Your task to perform on an android device: Turn off the flashlight Image 0: 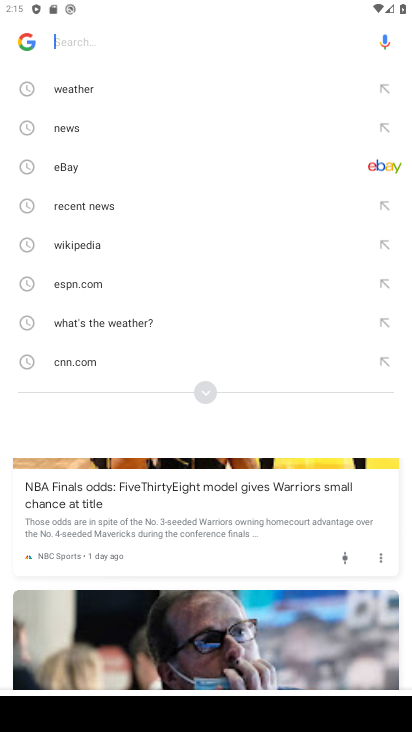
Step 0: press home button
Your task to perform on an android device: Turn off the flashlight Image 1: 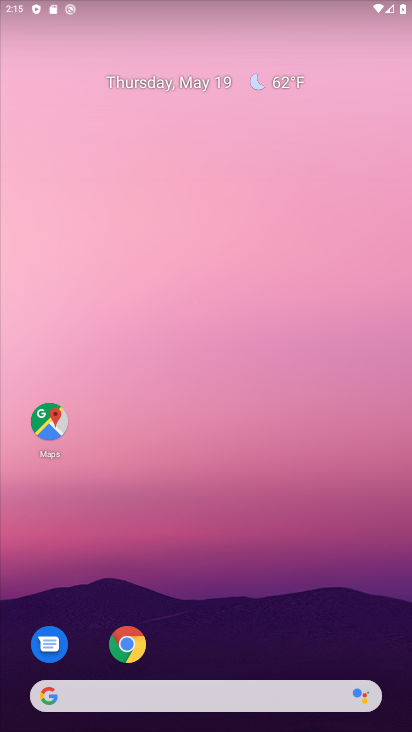
Step 1: drag from (276, 571) to (305, 158)
Your task to perform on an android device: Turn off the flashlight Image 2: 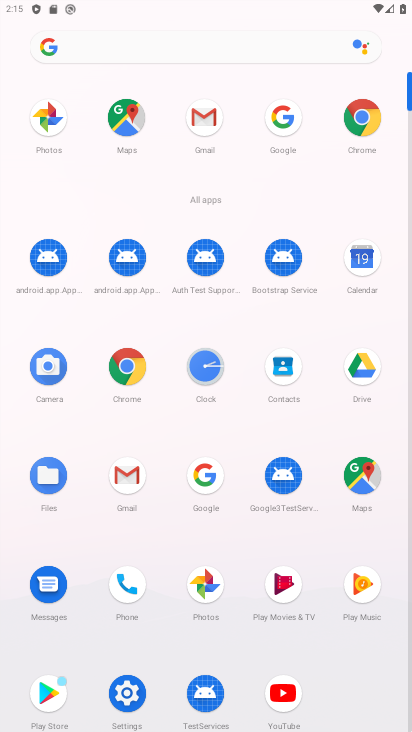
Step 2: click (124, 689)
Your task to perform on an android device: Turn off the flashlight Image 3: 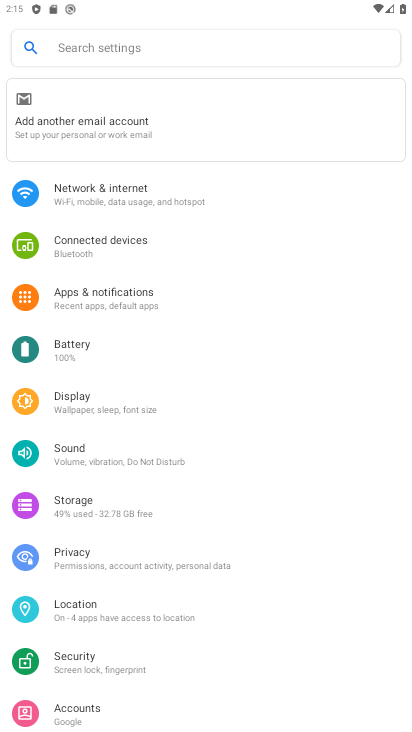
Step 3: click (132, 44)
Your task to perform on an android device: Turn off the flashlight Image 4: 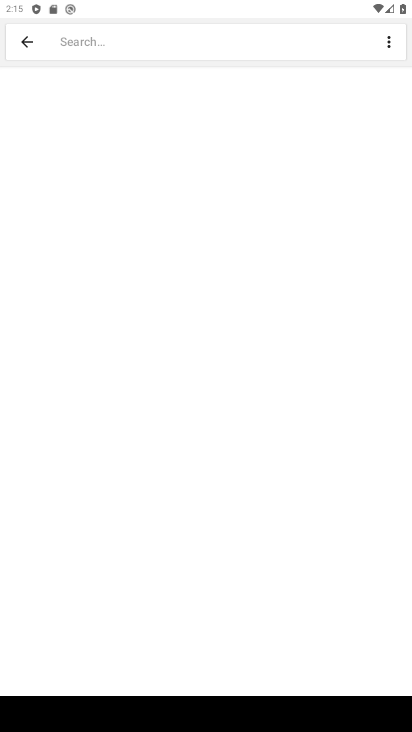
Step 4: type "flashlight"
Your task to perform on an android device: Turn off the flashlight Image 5: 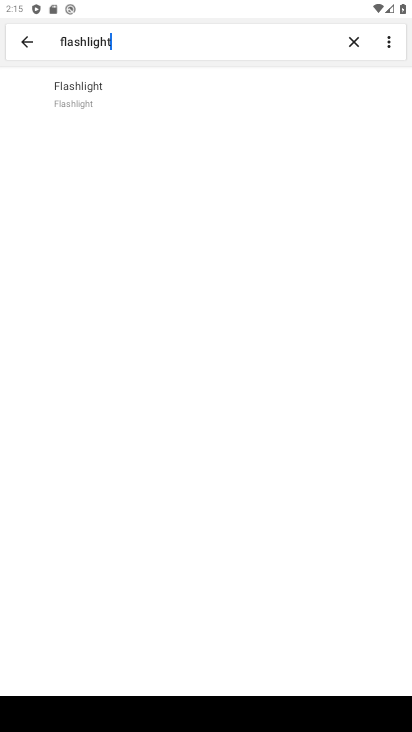
Step 5: click (131, 104)
Your task to perform on an android device: Turn off the flashlight Image 6: 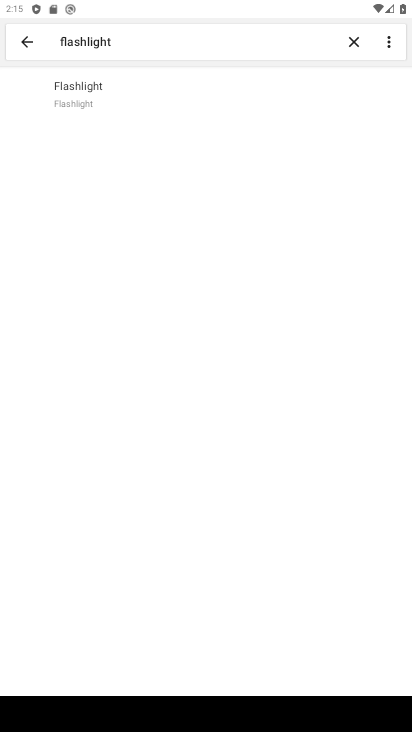
Step 6: task complete